Your task to perform on an android device: Toggle the flashlight Image 0: 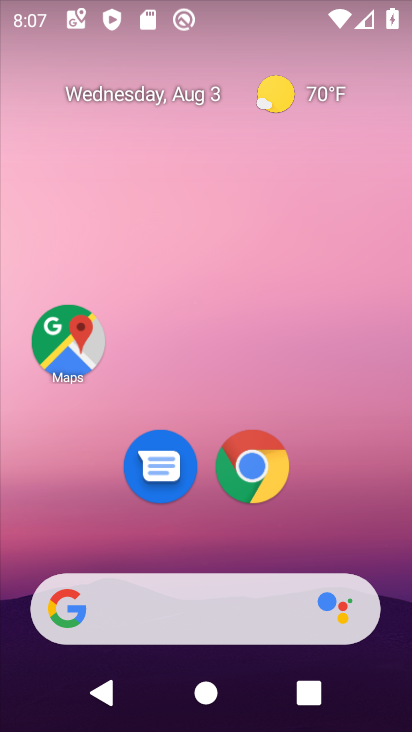
Step 0: drag from (376, 486) to (411, 124)
Your task to perform on an android device: Toggle the flashlight Image 1: 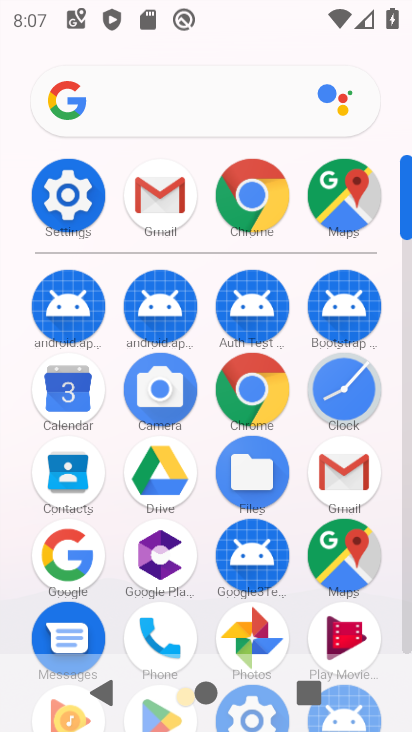
Step 1: click (52, 196)
Your task to perform on an android device: Toggle the flashlight Image 2: 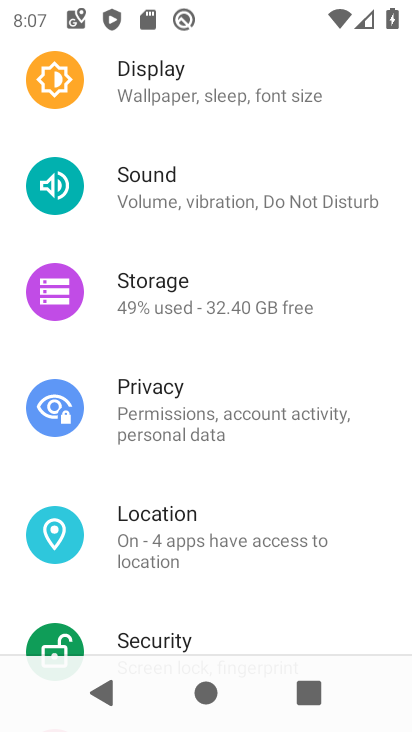
Step 2: drag from (259, 120) to (250, 329)
Your task to perform on an android device: Toggle the flashlight Image 3: 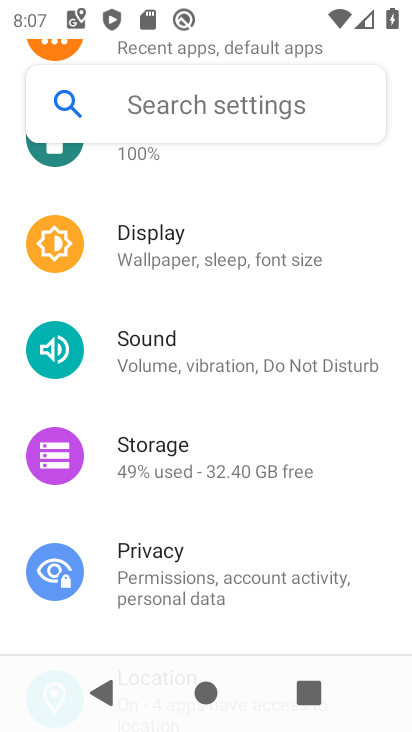
Step 3: click (208, 257)
Your task to perform on an android device: Toggle the flashlight Image 4: 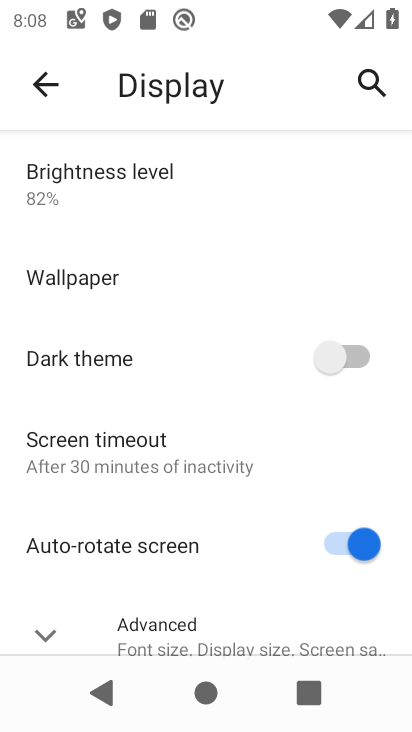
Step 4: task complete